Your task to perform on an android device: turn on data saver in the chrome app Image 0: 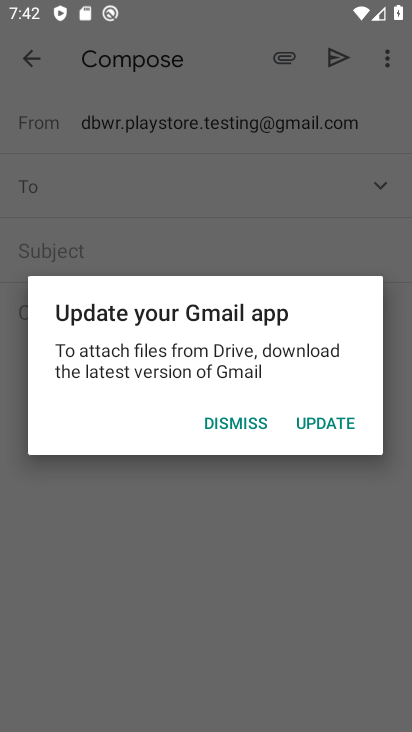
Step 0: click (251, 424)
Your task to perform on an android device: turn on data saver in the chrome app Image 1: 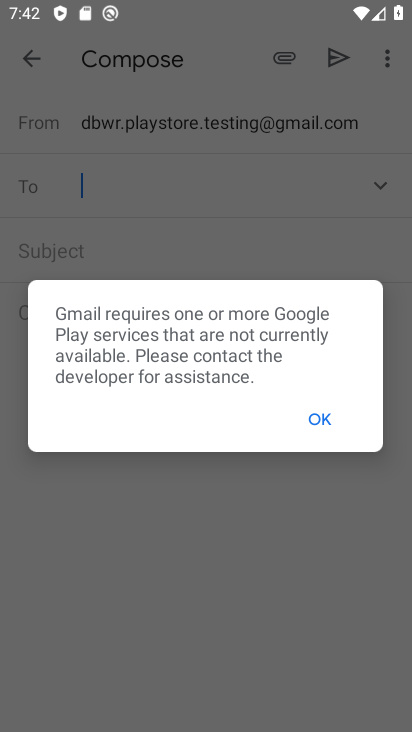
Step 1: press home button
Your task to perform on an android device: turn on data saver in the chrome app Image 2: 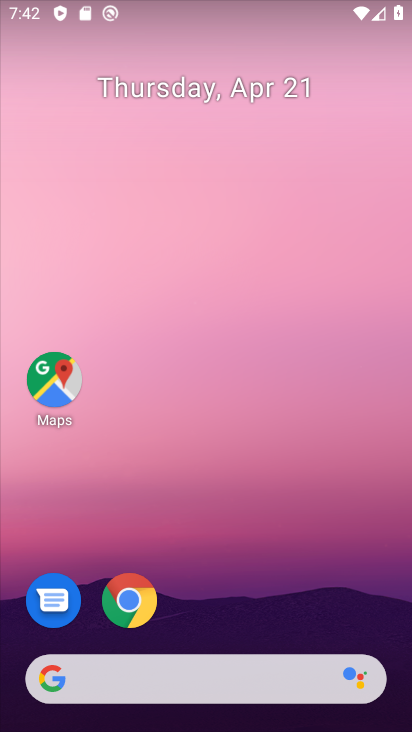
Step 2: click (125, 599)
Your task to perform on an android device: turn on data saver in the chrome app Image 3: 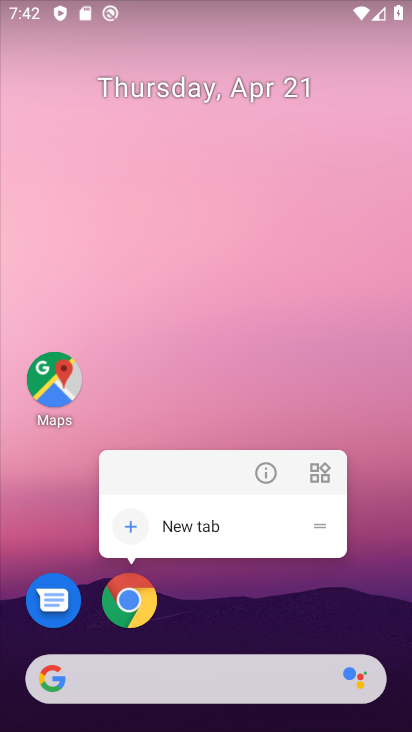
Step 3: click (272, 472)
Your task to perform on an android device: turn on data saver in the chrome app Image 4: 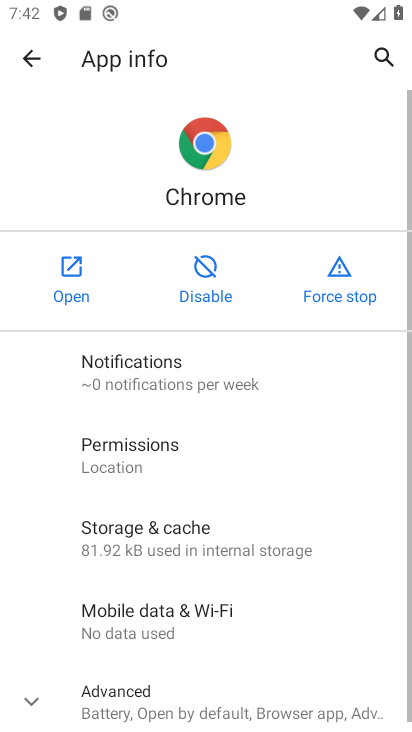
Step 4: click (71, 258)
Your task to perform on an android device: turn on data saver in the chrome app Image 5: 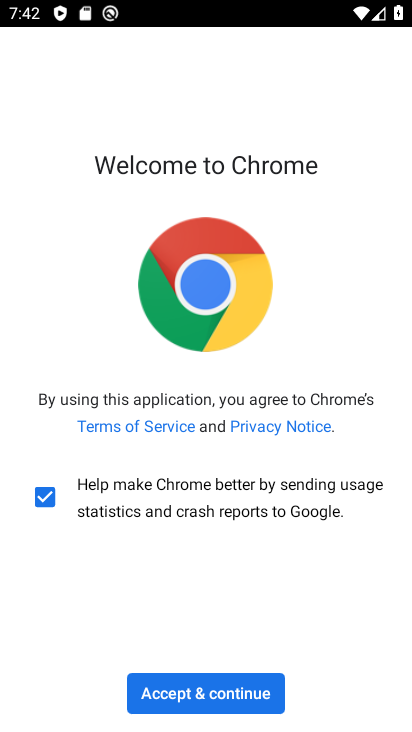
Step 5: click (201, 680)
Your task to perform on an android device: turn on data saver in the chrome app Image 6: 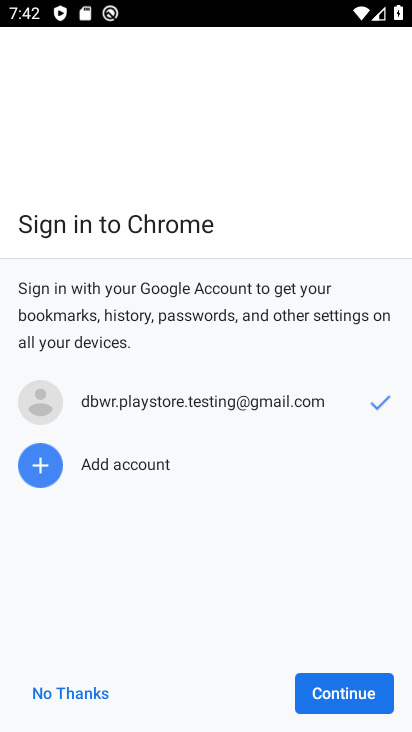
Step 6: click (90, 694)
Your task to perform on an android device: turn on data saver in the chrome app Image 7: 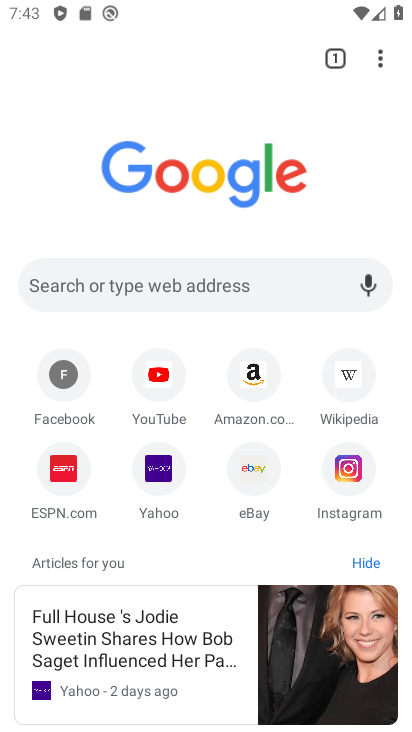
Step 7: click (378, 54)
Your task to perform on an android device: turn on data saver in the chrome app Image 8: 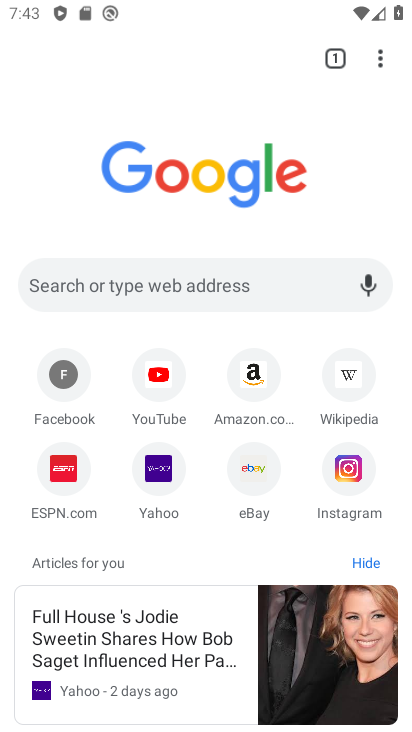
Step 8: click (378, 54)
Your task to perform on an android device: turn on data saver in the chrome app Image 9: 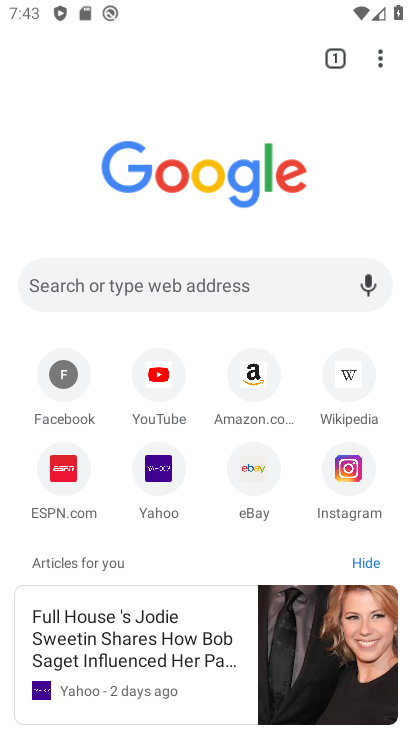
Step 9: click (376, 54)
Your task to perform on an android device: turn on data saver in the chrome app Image 10: 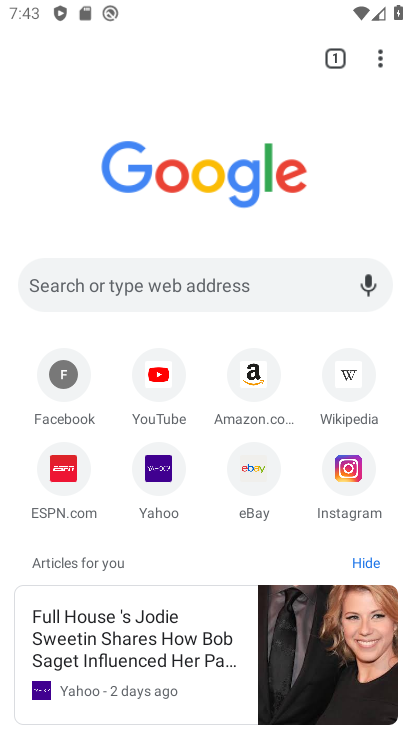
Step 10: click (373, 57)
Your task to perform on an android device: turn on data saver in the chrome app Image 11: 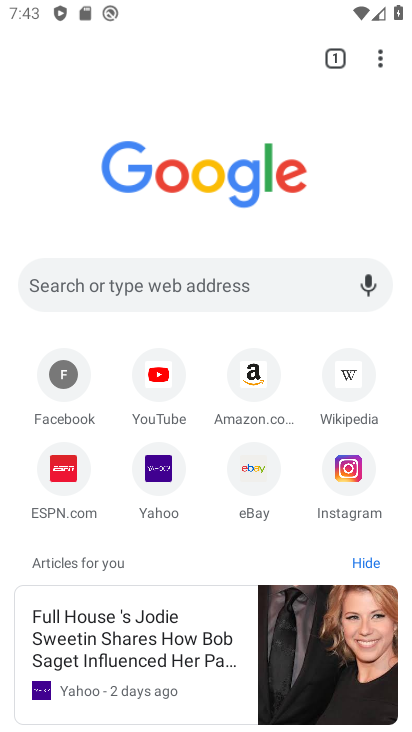
Step 11: click (382, 56)
Your task to perform on an android device: turn on data saver in the chrome app Image 12: 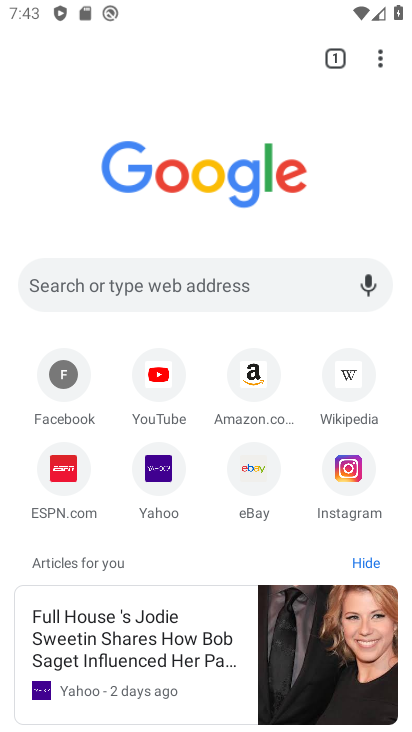
Step 12: click (382, 63)
Your task to perform on an android device: turn on data saver in the chrome app Image 13: 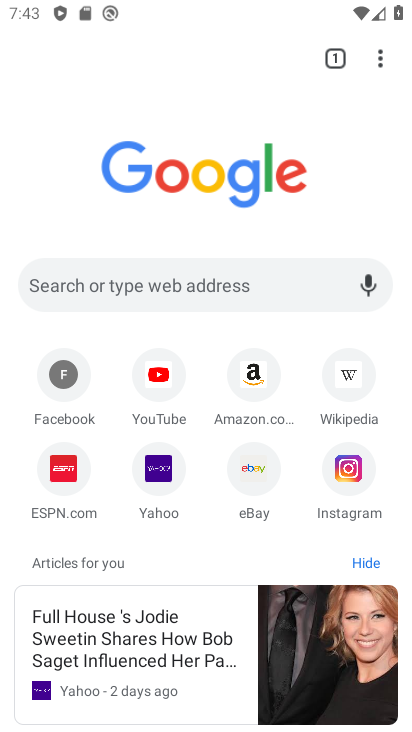
Step 13: click (382, 58)
Your task to perform on an android device: turn on data saver in the chrome app Image 14: 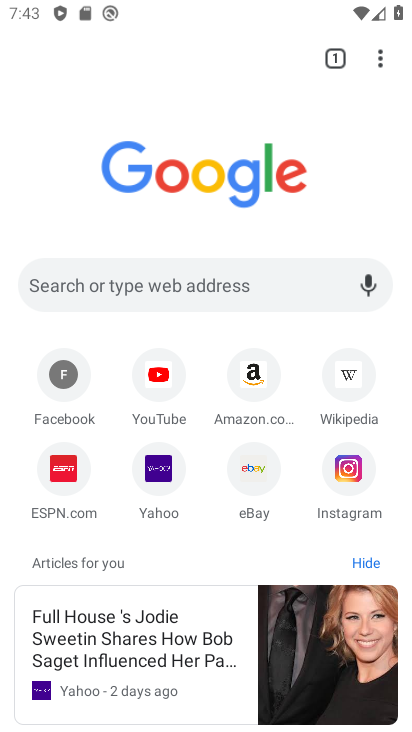
Step 14: click (375, 57)
Your task to perform on an android device: turn on data saver in the chrome app Image 15: 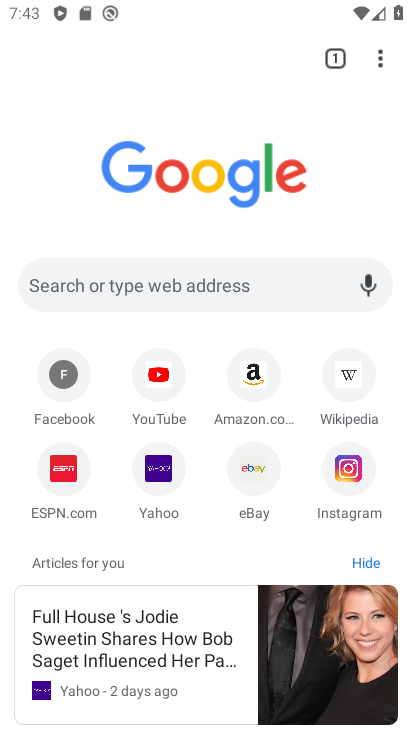
Step 15: click (378, 55)
Your task to perform on an android device: turn on data saver in the chrome app Image 16: 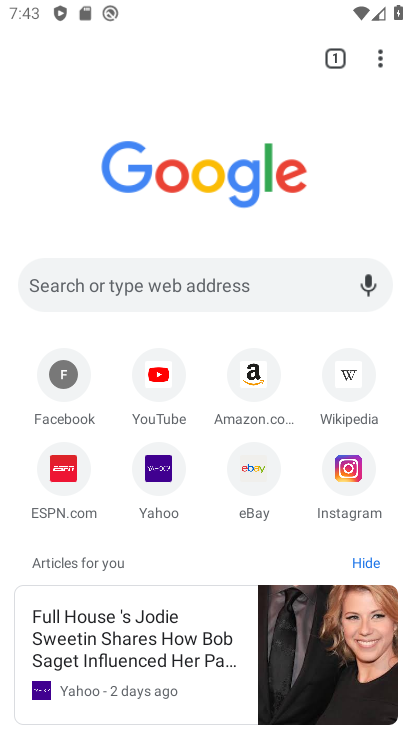
Step 16: click (378, 55)
Your task to perform on an android device: turn on data saver in the chrome app Image 17: 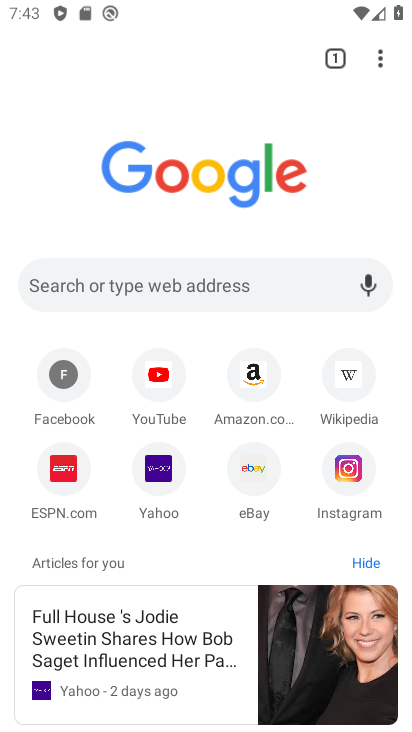
Step 17: click (377, 55)
Your task to perform on an android device: turn on data saver in the chrome app Image 18: 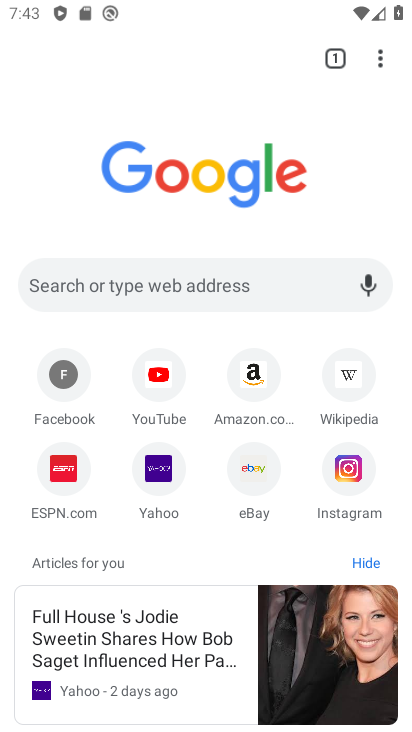
Step 18: click (377, 55)
Your task to perform on an android device: turn on data saver in the chrome app Image 19: 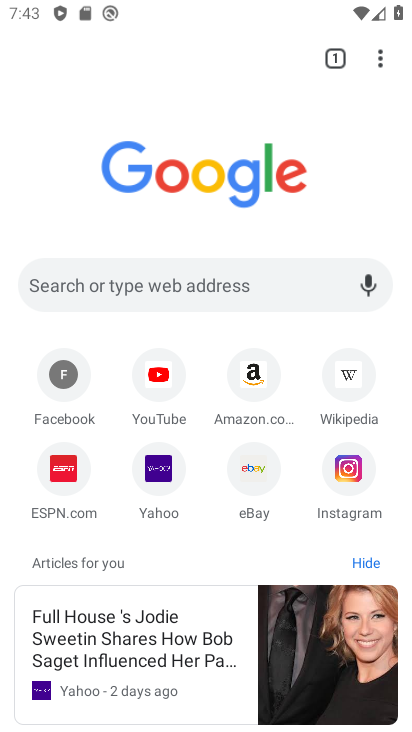
Step 19: click (381, 56)
Your task to perform on an android device: turn on data saver in the chrome app Image 20: 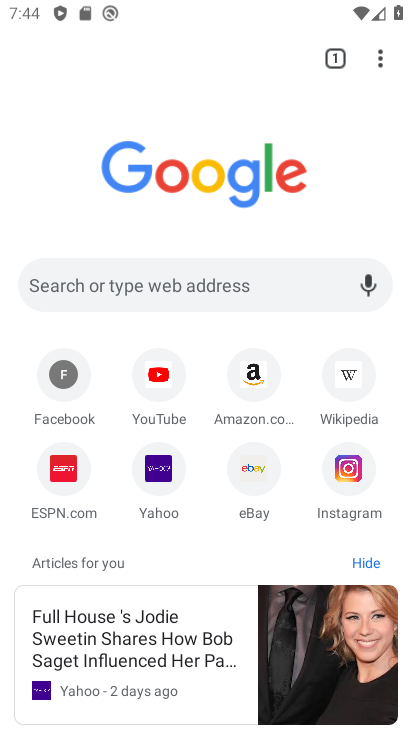
Step 20: click (378, 62)
Your task to perform on an android device: turn on data saver in the chrome app Image 21: 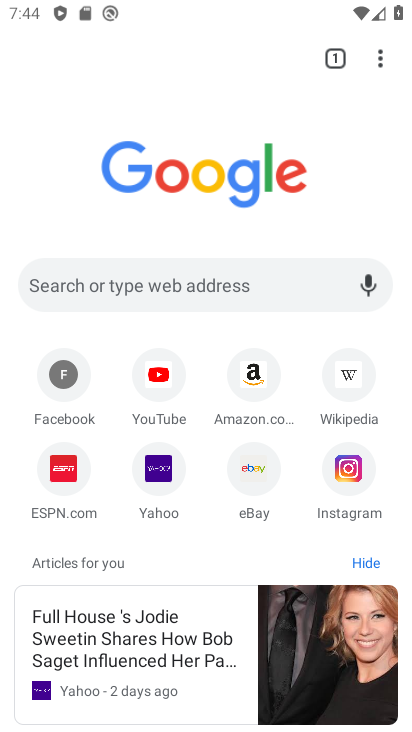
Step 21: click (378, 65)
Your task to perform on an android device: turn on data saver in the chrome app Image 22: 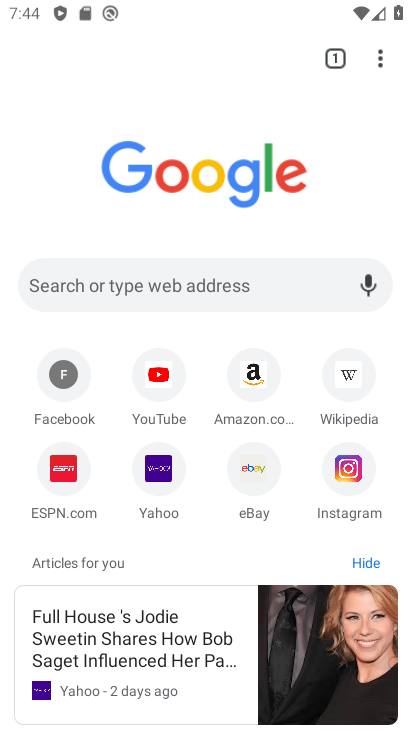
Step 22: click (377, 65)
Your task to perform on an android device: turn on data saver in the chrome app Image 23: 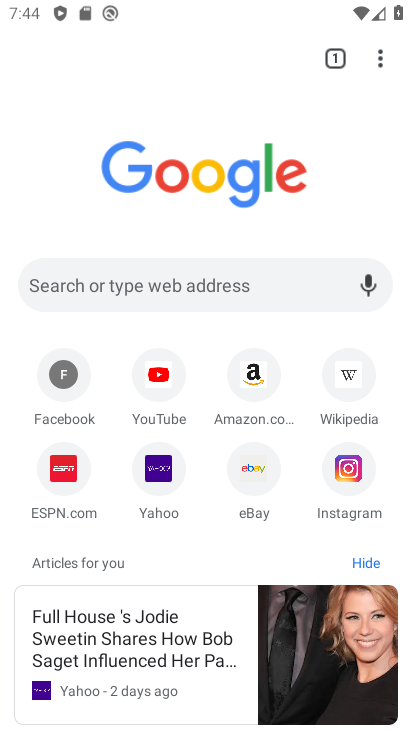
Step 23: click (388, 66)
Your task to perform on an android device: turn on data saver in the chrome app Image 24: 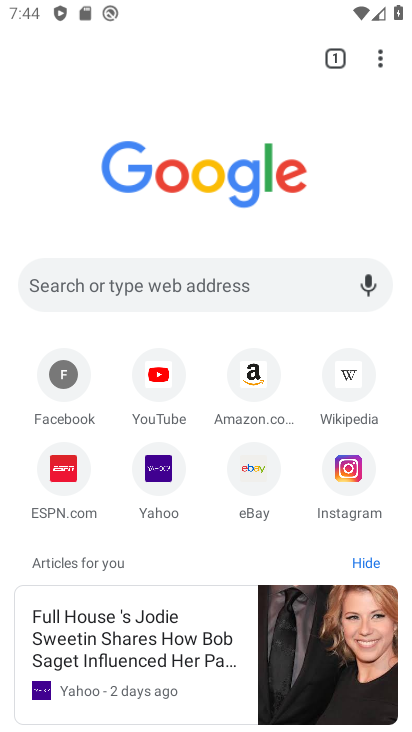
Step 24: click (377, 58)
Your task to perform on an android device: turn on data saver in the chrome app Image 25: 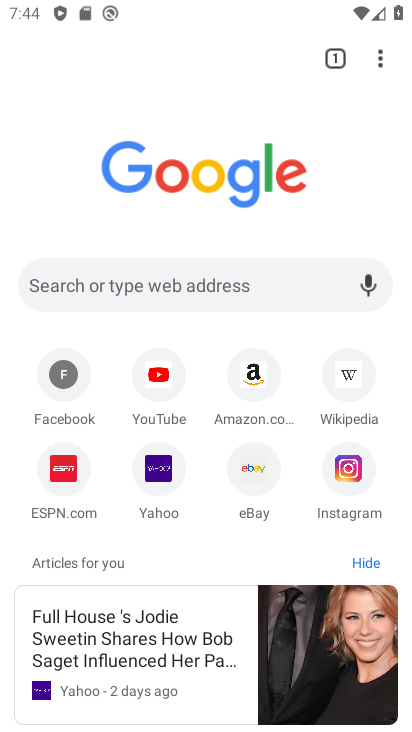
Step 25: click (377, 58)
Your task to perform on an android device: turn on data saver in the chrome app Image 26: 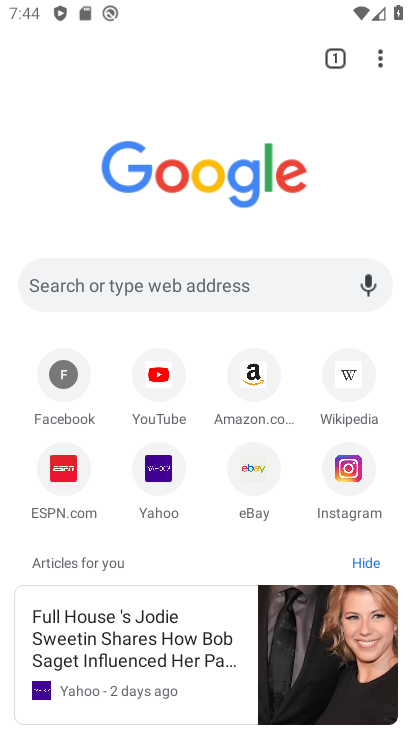
Step 26: click (377, 58)
Your task to perform on an android device: turn on data saver in the chrome app Image 27: 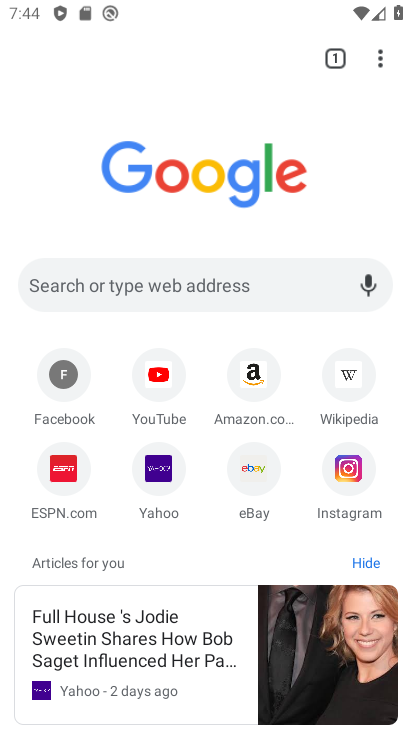
Step 27: click (375, 56)
Your task to perform on an android device: turn on data saver in the chrome app Image 28: 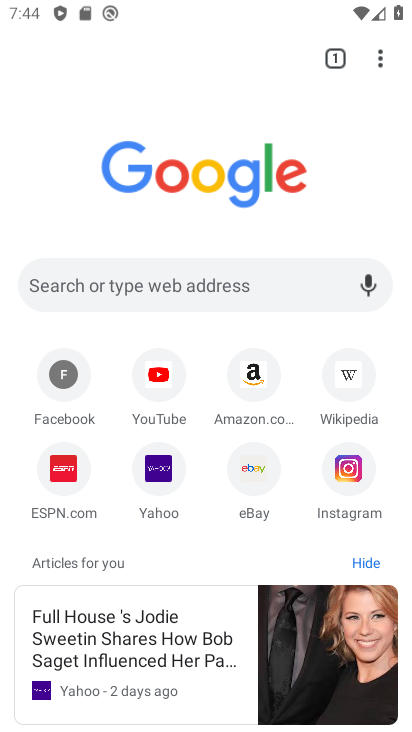
Step 28: click (375, 56)
Your task to perform on an android device: turn on data saver in the chrome app Image 29: 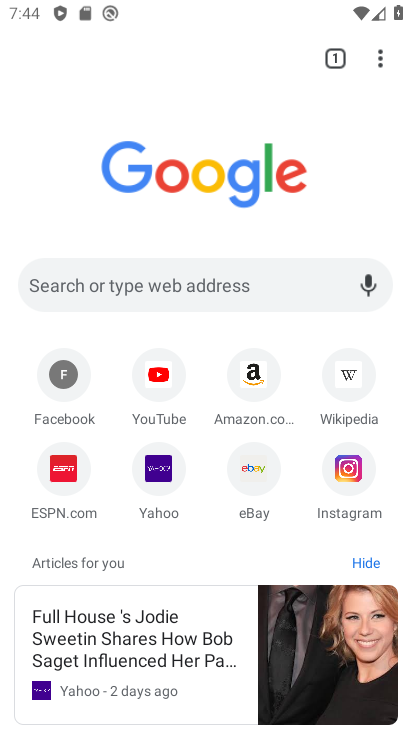
Step 29: click (375, 56)
Your task to perform on an android device: turn on data saver in the chrome app Image 30: 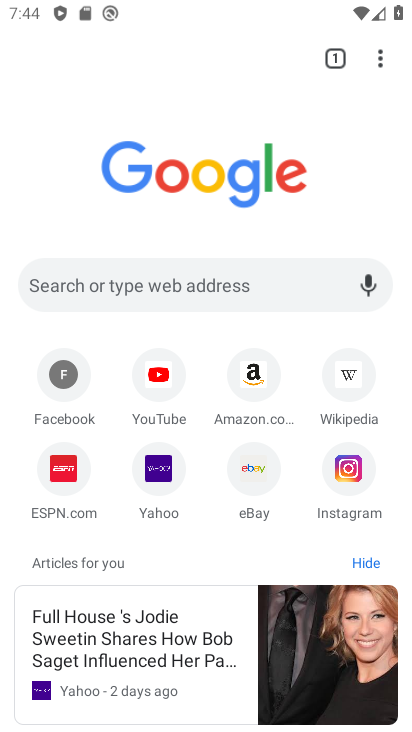
Step 30: click (378, 66)
Your task to perform on an android device: turn on data saver in the chrome app Image 31: 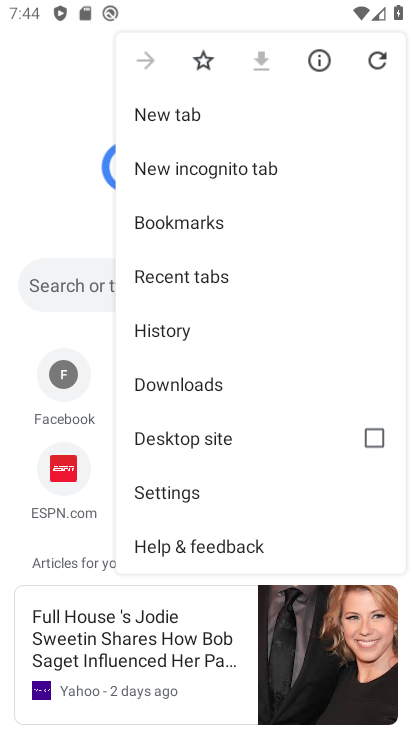
Step 31: click (201, 500)
Your task to perform on an android device: turn on data saver in the chrome app Image 32: 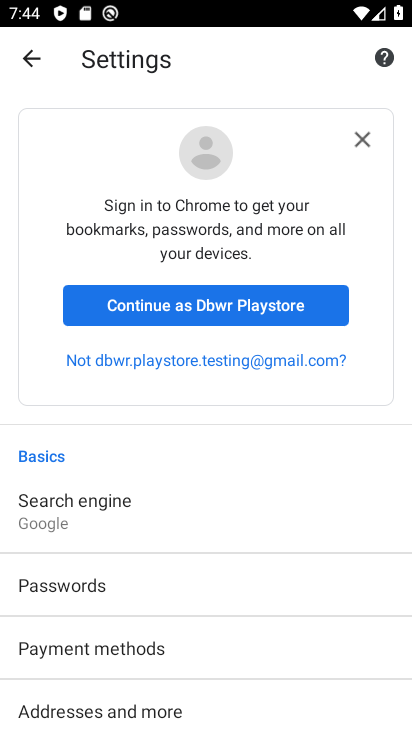
Step 32: drag from (140, 628) to (262, 344)
Your task to perform on an android device: turn on data saver in the chrome app Image 33: 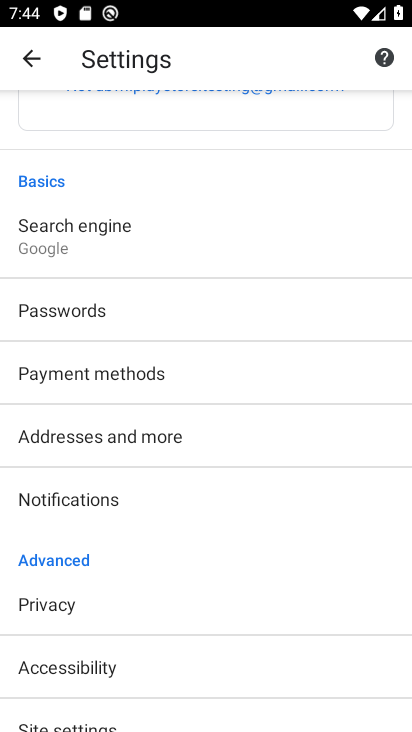
Step 33: drag from (255, 629) to (350, 314)
Your task to perform on an android device: turn on data saver in the chrome app Image 34: 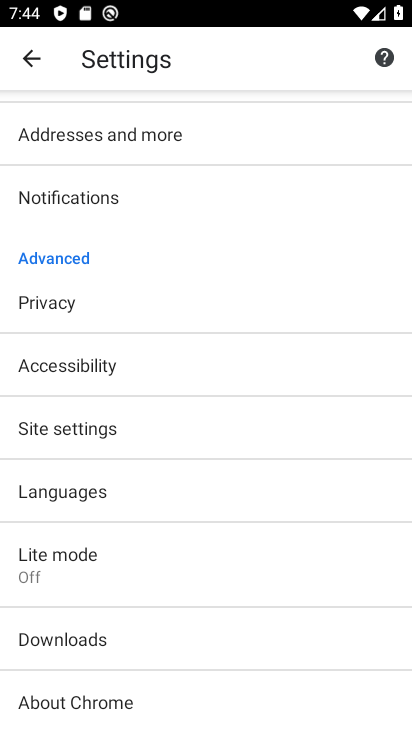
Step 34: click (126, 421)
Your task to perform on an android device: turn on data saver in the chrome app Image 35: 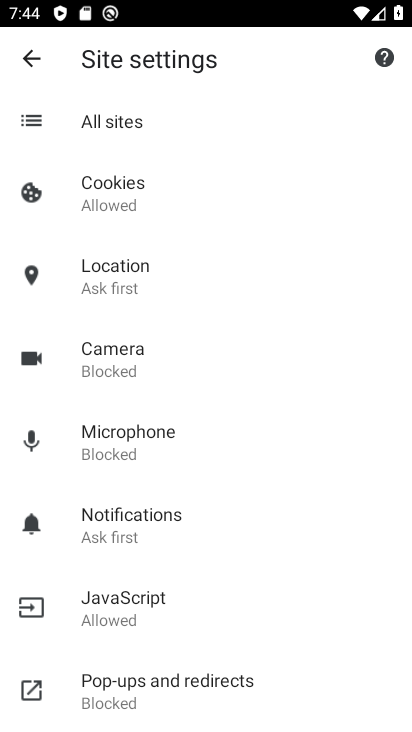
Step 35: press back button
Your task to perform on an android device: turn on data saver in the chrome app Image 36: 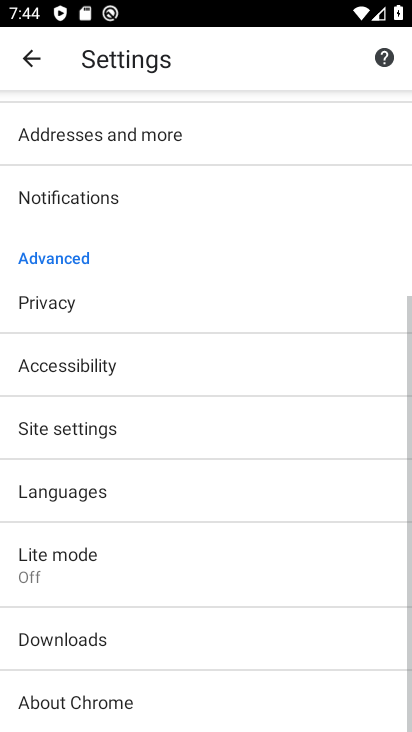
Step 36: click (61, 556)
Your task to perform on an android device: turn on data saver in the chrome app Image 37: 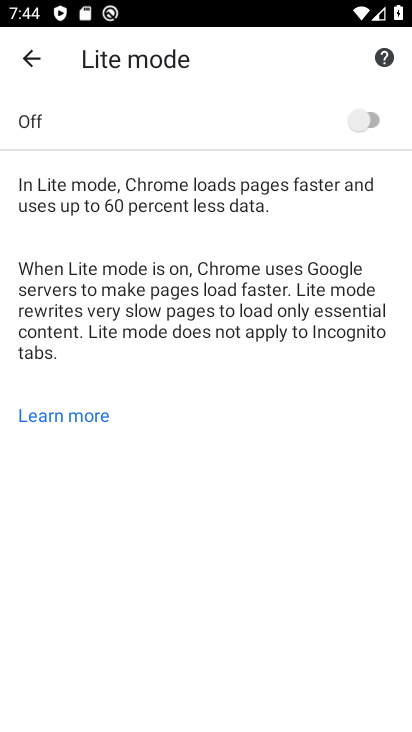
Step 37: click (347, 117)
Your task to perform on an android device: turn on data saver in the chrome app Image 38: 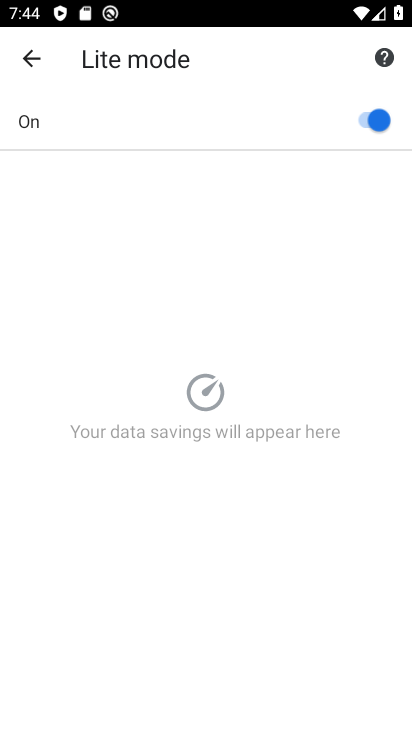
Step 38: task complete